Your task to perform on an android device: Open internet settings Image 0: 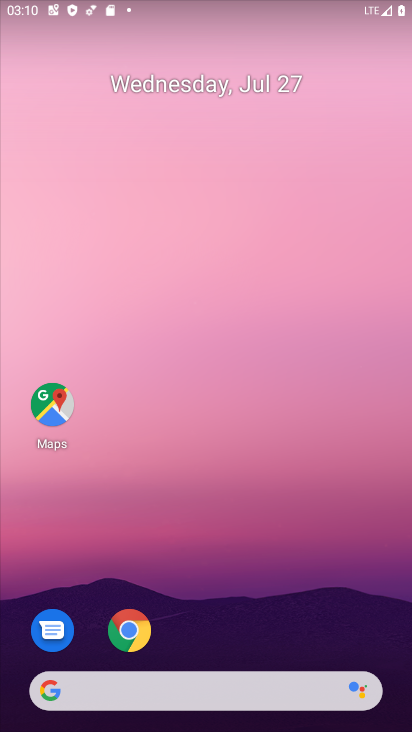
Step 0: drag from (272, 682) to (219, 95)
Your task to perform on an android device: Open internet settings Image 1: 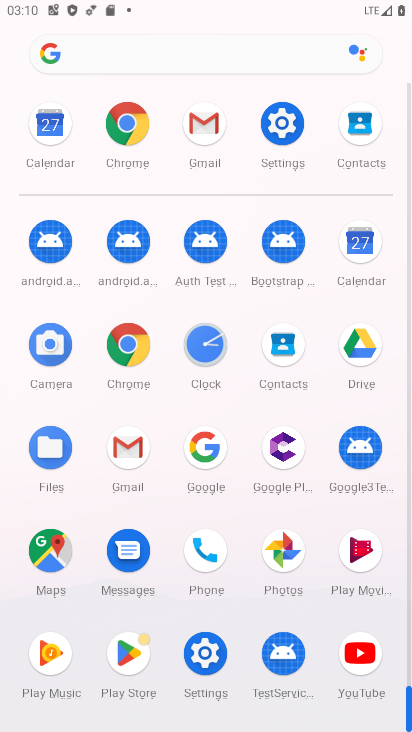
Step 1: click (277, 118)
Your task to perform on an android device: Open internet settings Image 2: 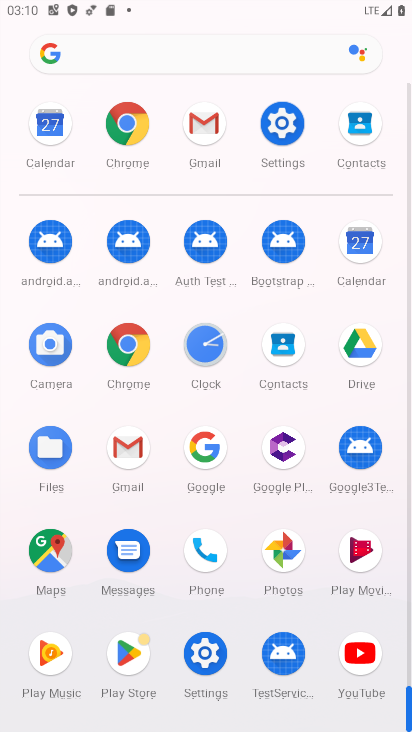
Step 2: click (277, 118)
Your task to perform on an android device: Open internet settings Image 3: 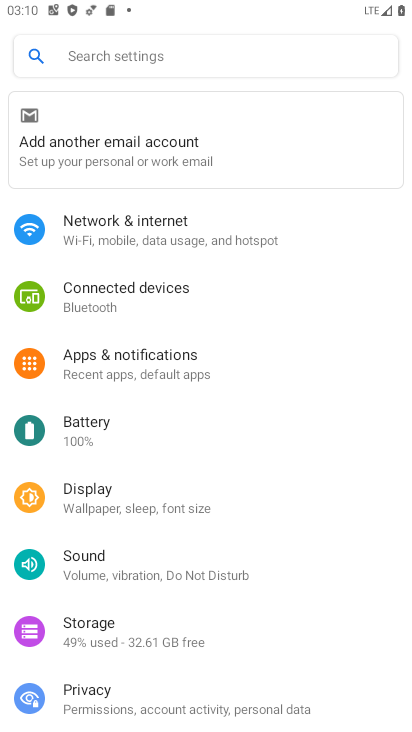
Step 3: drag from (120, 617) to (73, 279)
Your task to perform on an android device: Open internet settings Image 4: 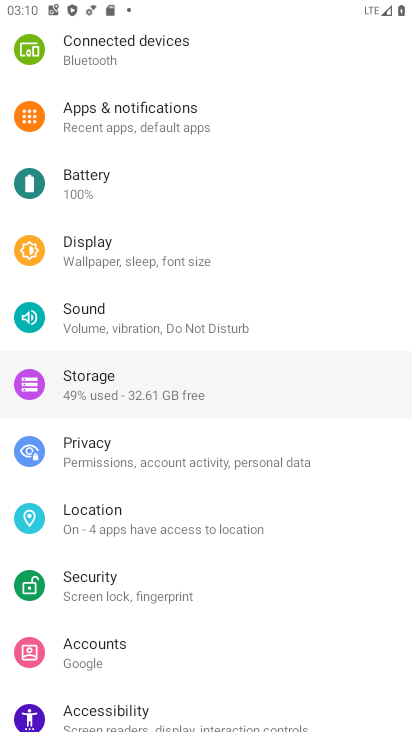
Step 4: drag from (133, 572) to (125, 217)
Your task to perform on an android device: Open internet settings Image 5: 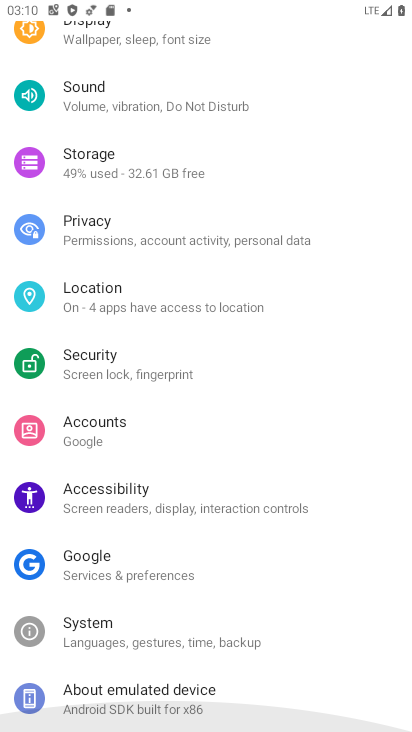
Step 5: drag from (139, 546) to (166, 141)
Your task to perform on an android device: Open internet settings Image 6: 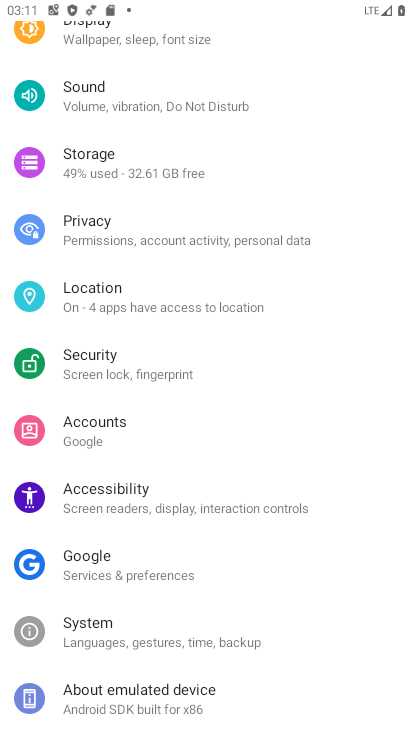
Step 6: drag from (110, 67) to (103, 400)
Your task to perform on an android device: Open internet settings Image 7: 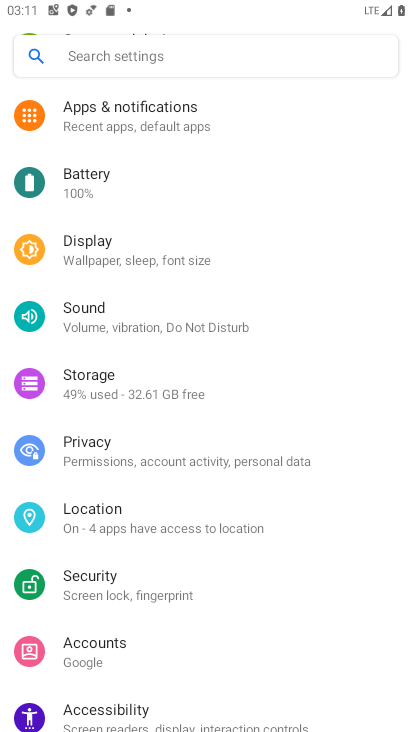
Step 7: drag from (77, 178) to (125, 299)
Your task to perform on an android device: Open internet settings Image 8: 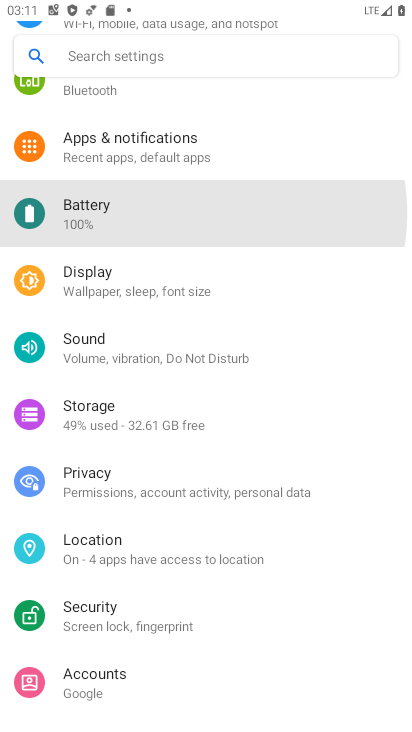
Step 8: click (166, 372)
Your task to perform on an android device: Open internet settings Image 9: 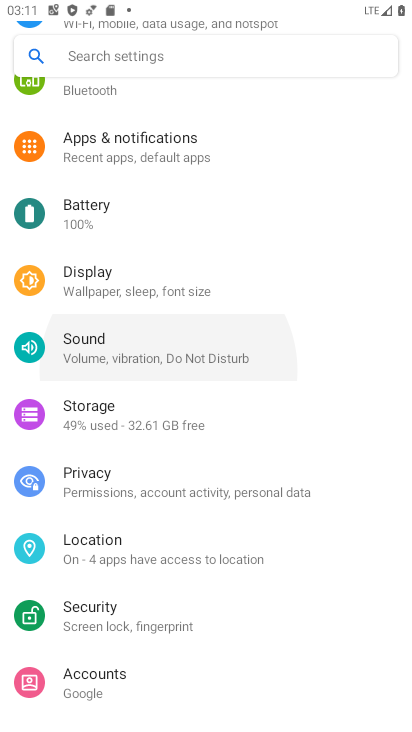
Step 9: drag from (117, 191) to (176, 472)
Your task to perform on an android device: Open internet settings Image 10: 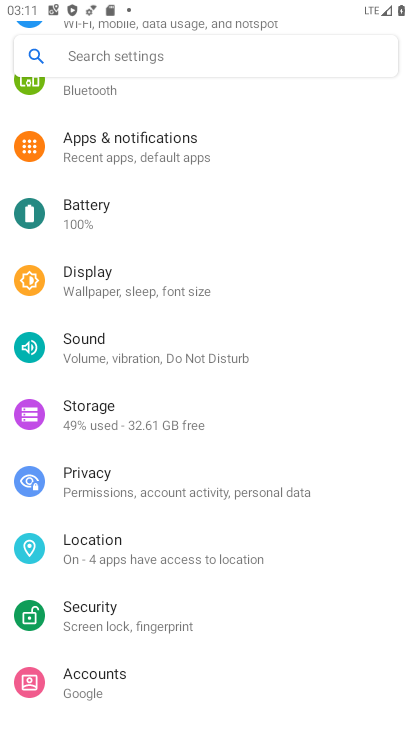
Step 10: drag from (163, 242) to (216, 504)
Your task to perform on an android device: Open internet settings Image 11: 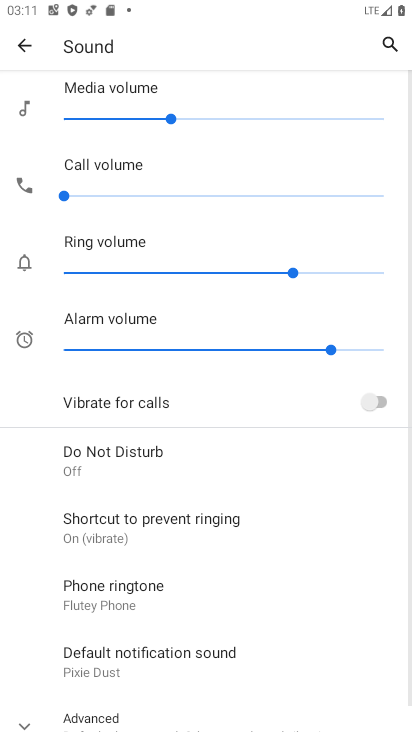
Step 11: click (33, 46)
Your task to perform on an android device: Open internet settings Image 12: 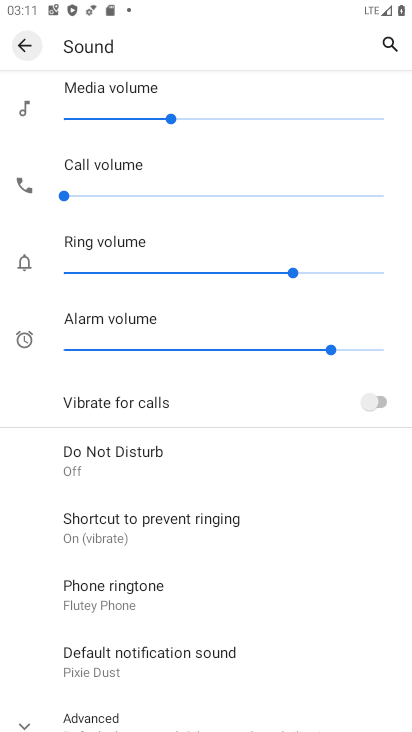
Step 12: click (34, 50)
Your task to perform on an android device: Open internet settings Image 13: 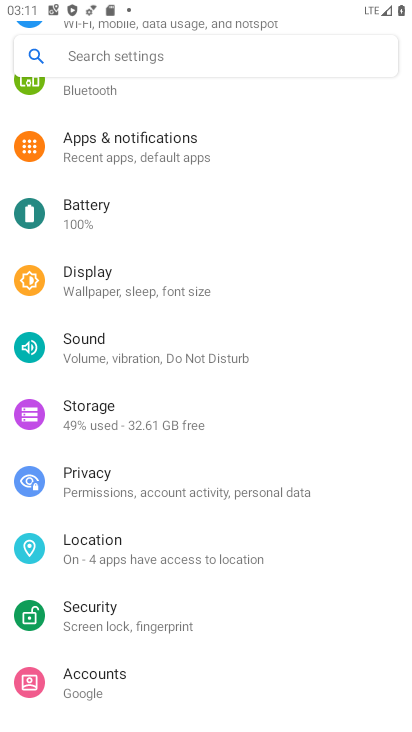
Step 13: drag from (114, 257) to (136, 395)
Your task to perform on an android device: Open internet settings Image 14: 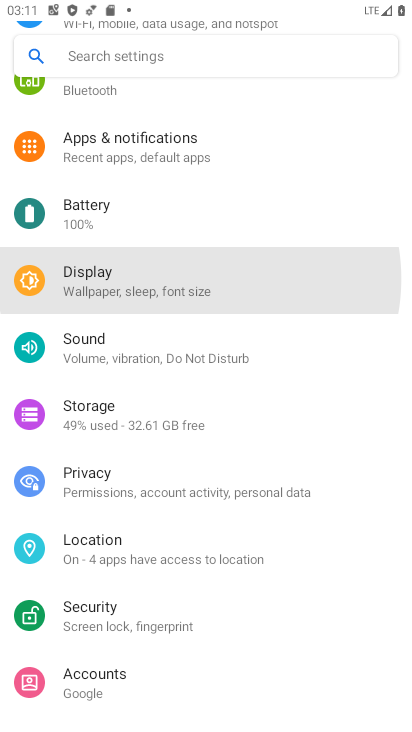
Step 14: drag from (101, 289) to (159, 484)
Your task to perform on an android device: Open internet settings Image 15: 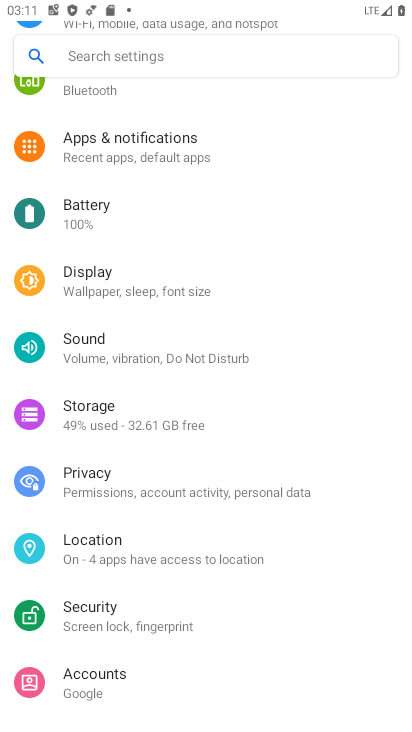
Step 15: drag from (93, 318) to (161, 577)
Your task to perform on an android device: Open internet settings Image 16: 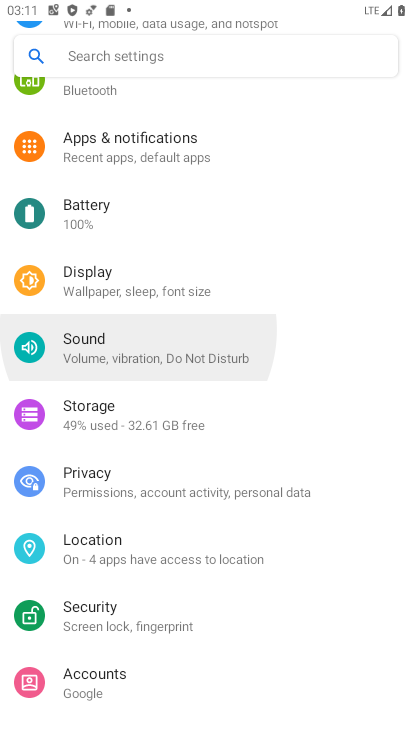
Step 16: drag from (131, 355) to (174, 669)
Your task to perform on an android device: Open internet settings Image 17: 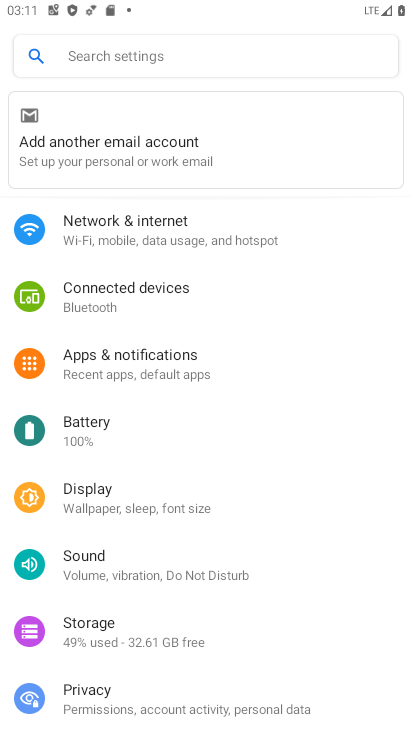
Step 17: drag from (135, 175) to (160, 453)
Your task to perform on an android device: Open internet settings Image 18: 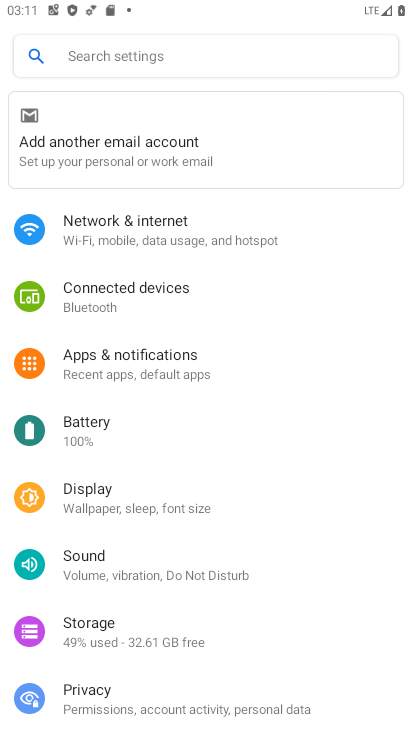
Step 18: click (112, 219)
Your task to perform on an android device: Open internet settings Image 19: 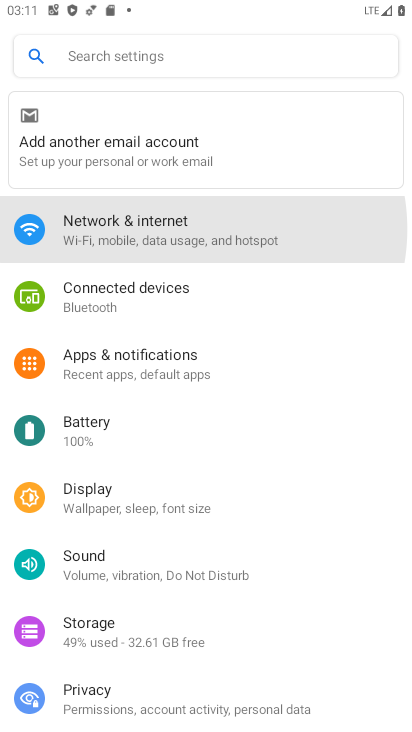
Step 19: click (112, 221)
Your task to perform on an android device: Open internet settings Image 20: 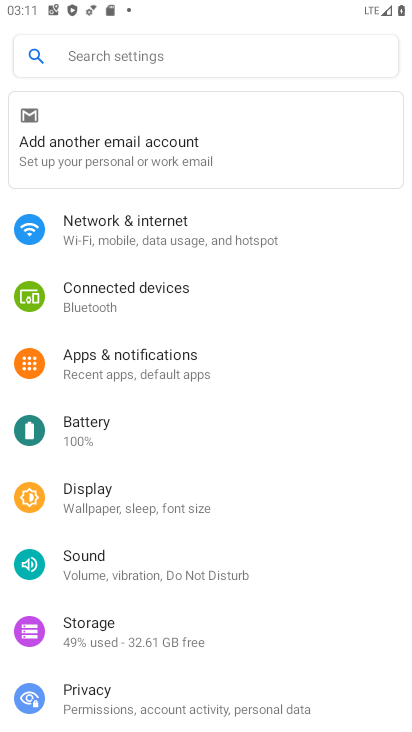
Step 20: click (114, 221)
Your task to perform on an android device: Open internet settings Image 21: 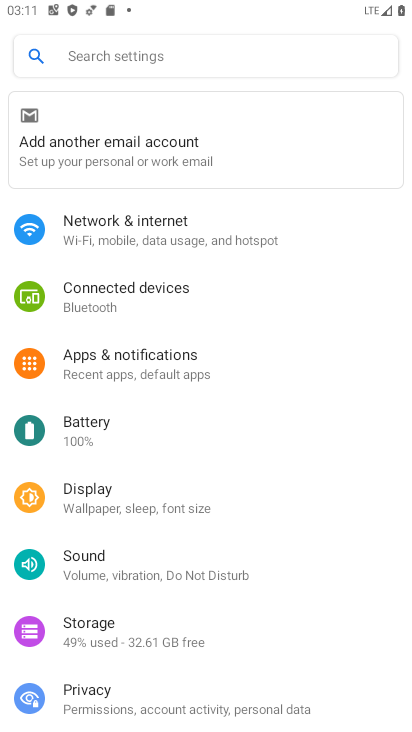
Step 21: click (114, 221)
Your task to perform on an android device: Open internet settings Image 22: 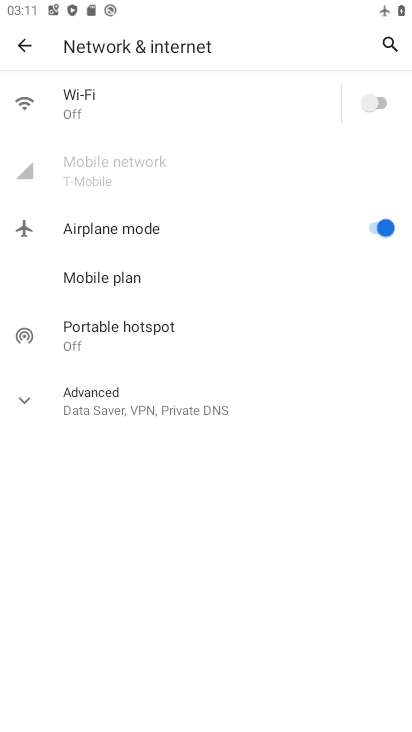
Step 22: click (380, 100)
Your task to perform on an android device: Open internet settings Image 23: 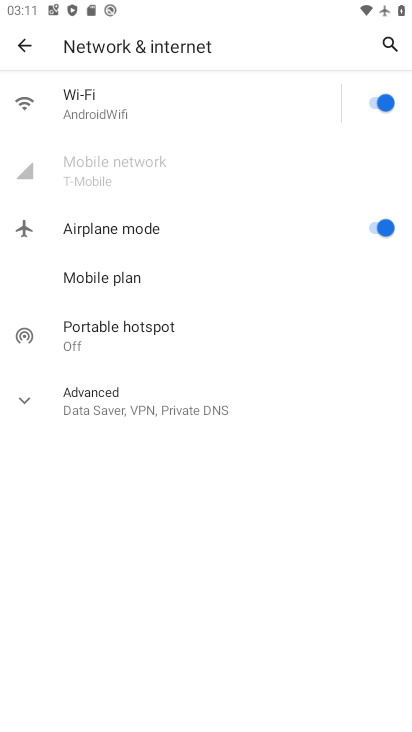
Step 23: click (373, 224)
Your task to perform on an android device: Open internet settings Image 24: 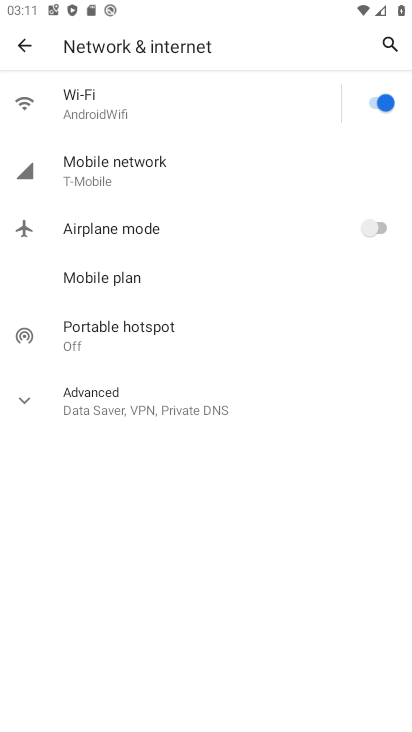
Step 24: task complete